Your task to perform on an android device: turn on data saver in the chrome app Image 0: 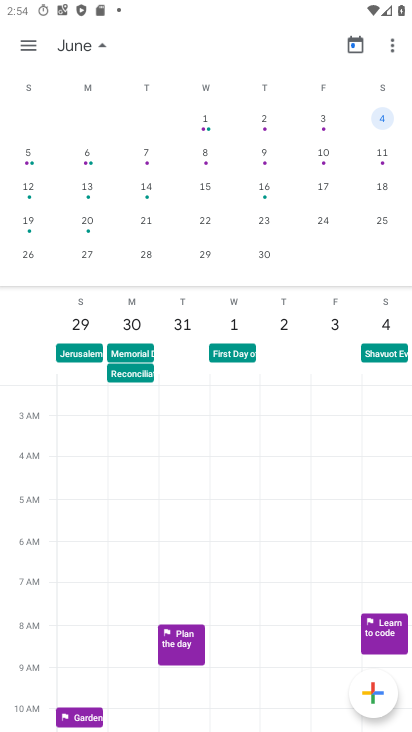
Step 0: press home button
Your task to perform on an android device: turn on data saver in the chrome app Image 1: 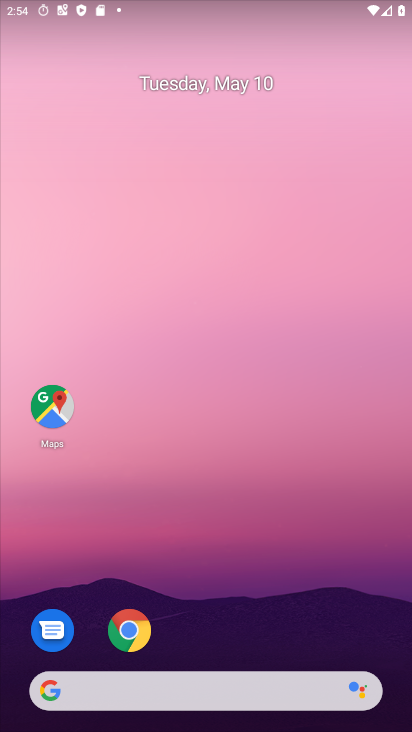
Step 1: click (118, 634)
Your task to perform on an android device: turn on data saver in the chrome app Image 2: 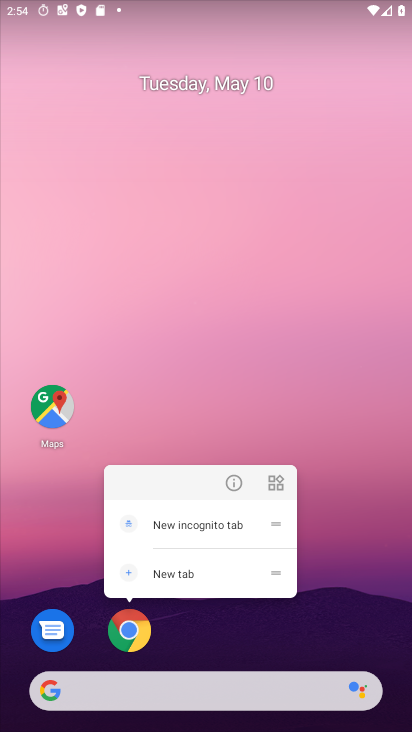
Step 2: click (136, 632)
Your task to perform on an android device: turn on data saver in the chrome app Image 3: 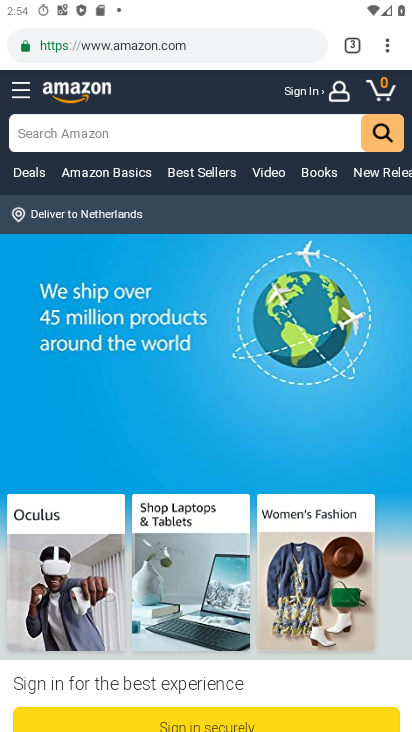
Step 3: click (380, 43)
Your task to perform on an android device: turn on data saver in the chrome app Image 4: 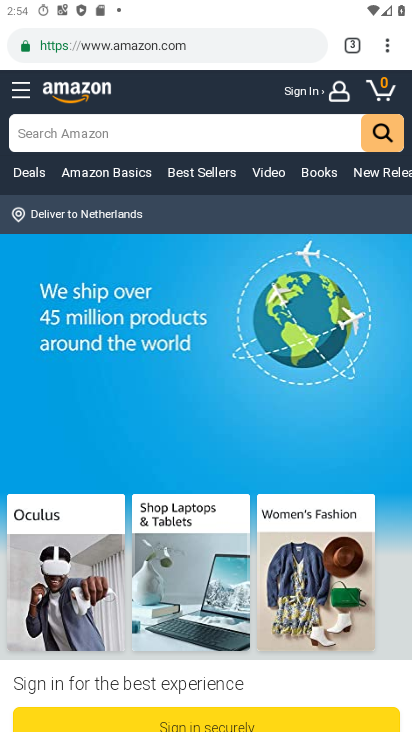
Step 4: click (389, 41)
Your task to perform on an android device: turn on data saver in the chrome app Image 5: 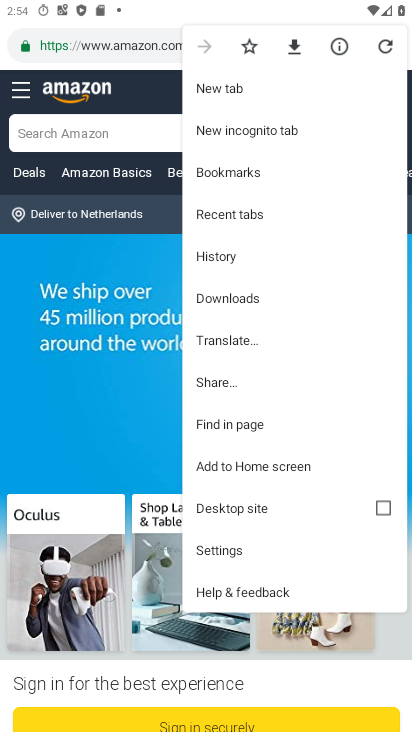
Step 5: click (219, 540)
Your task to perform on an android device: turn on data saver in the chrome app Image 6: 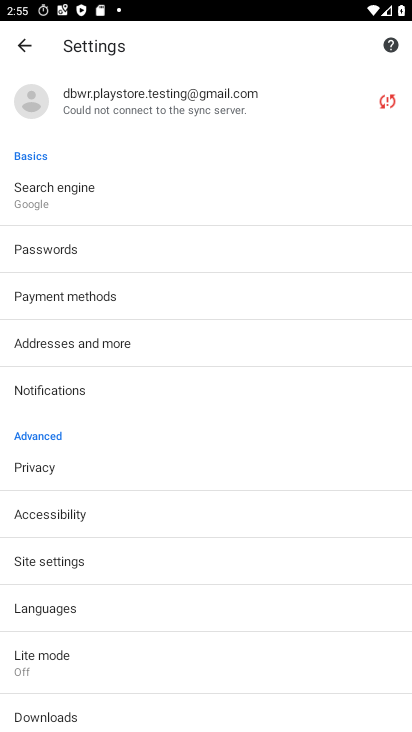
Step 6: drag from (250, 522) to (288, 170)
Your task to perform on an android device: turn on data saver in the chrome app Image 7: 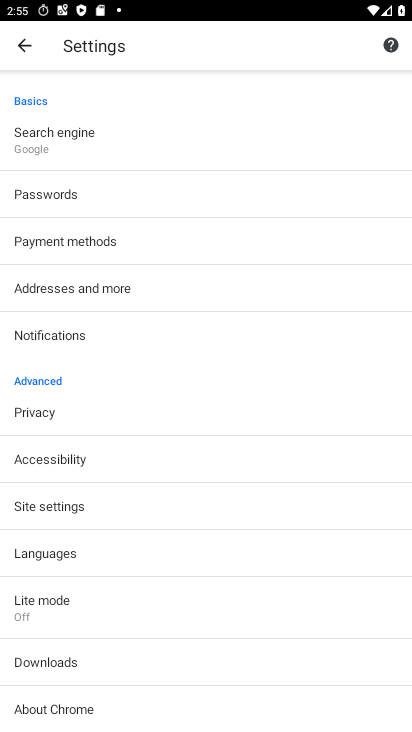
Step 7: click (43, 609)
Your task to perform on an android device: turn on data saver in the chrome app Image 8: 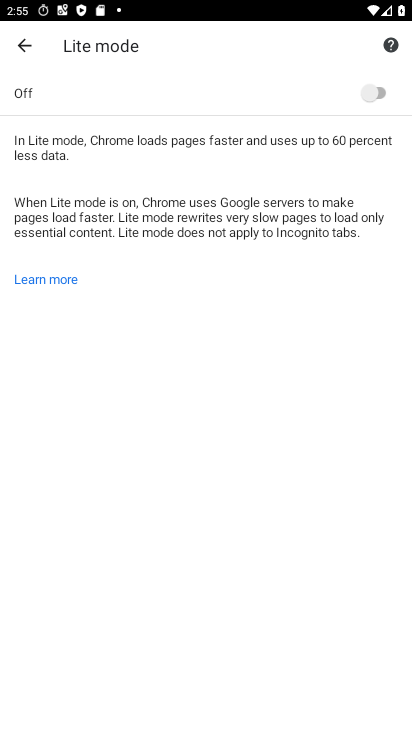
Step 8: click (378, 88)
Your task to perform on an android device: turn on data saver in the chrome app Image 9: 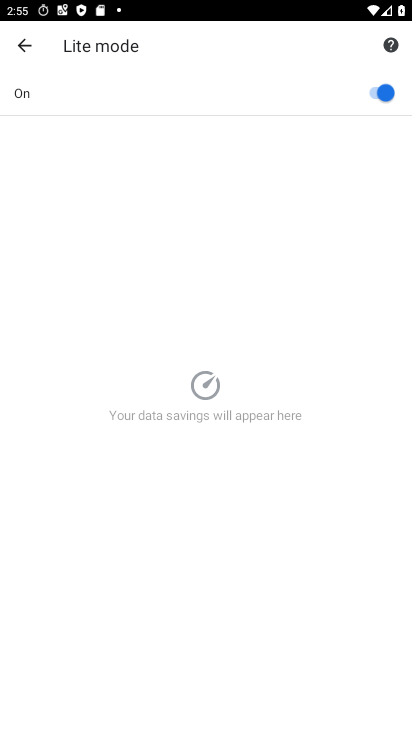
Step 9: task complete